Your task to perform on an android device: turn on bluetooth scan Image 0: 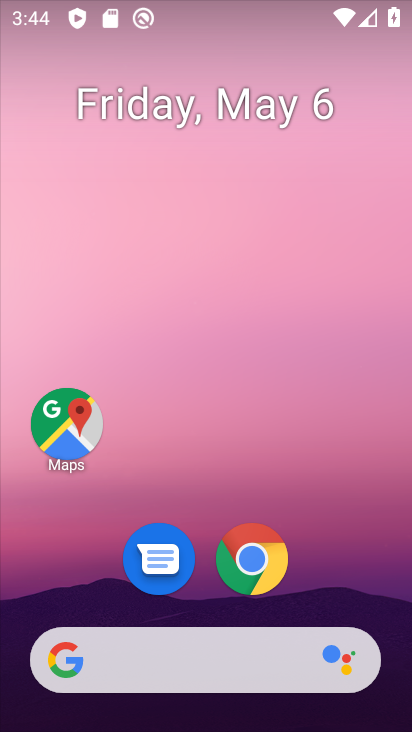
Step 0: drag from (189, 549) to (293, 213)
Your task to perform on an android device: turn on bluetooth scan Image 1: 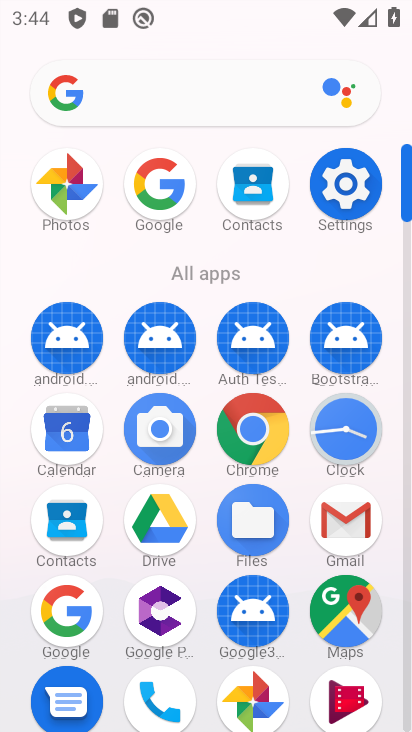
Step 1: click (354, 201)
Your task to perform on an android device: turn on bluetooth scan Image 2: 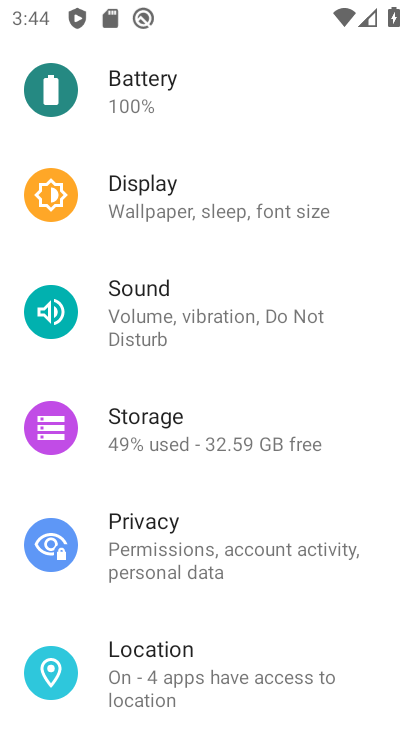
Step 2: drag from (140, 677) to (206, 320)
Your task to perform on an android device: turn on bluetooth scan Image 3: 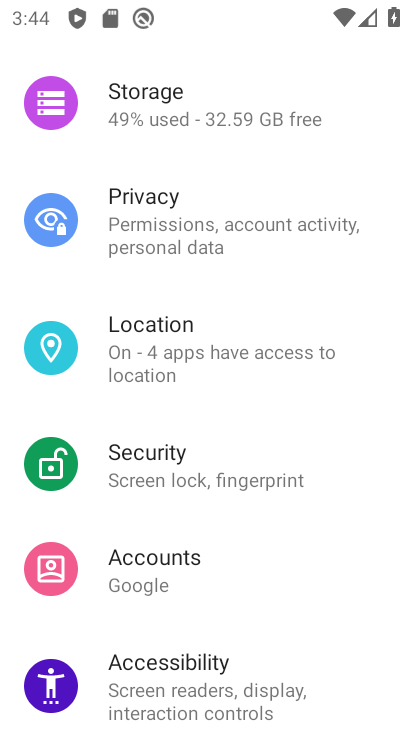
Step 3: click (178, 337)
Your task to perform on an android device: turn on bluetooth scan Image 4: 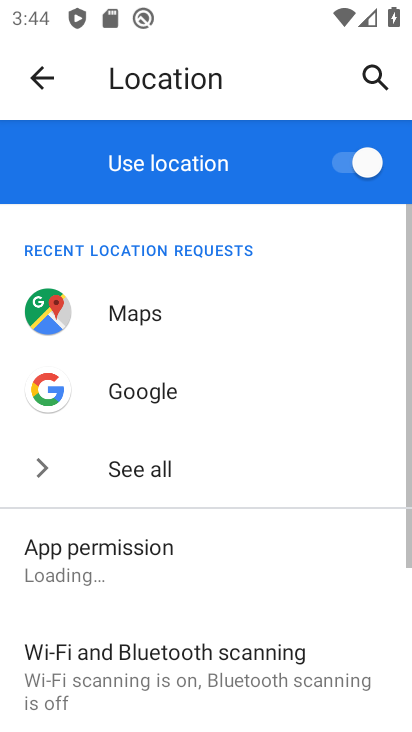
Step 4: drag from (170, 685) to (234, 416)
Your task to perform on an android device: turn on bluetooth scan Image 5: 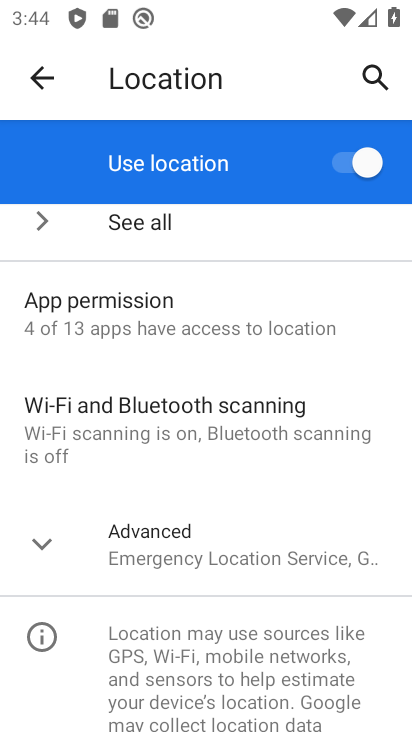
Step 5: click (152, 430)
Your task to perform on an android device: turn on bluetooth scan Image 6: 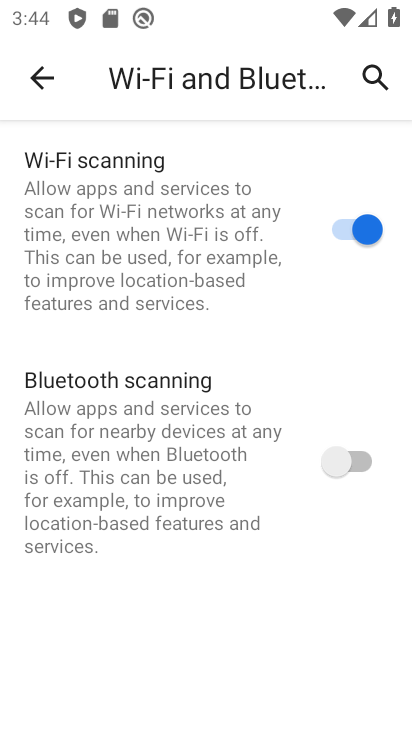
Step 6: click (353, 464)
Your task to perform on an android device: turn on bluetooth scan Image 7: 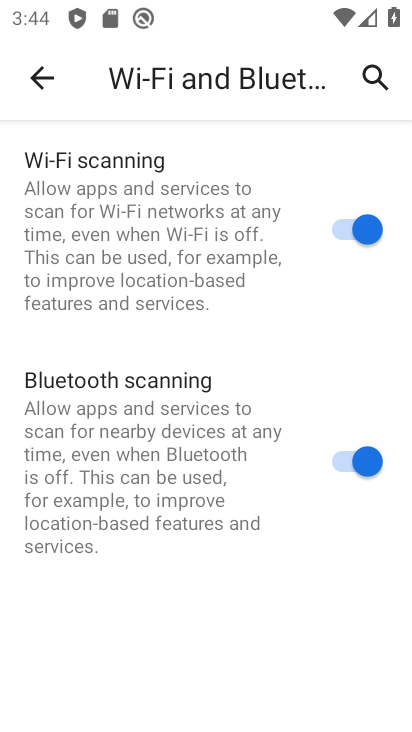
Step 7: task complete